Your task to perform on an android device: turn off location Image 0: 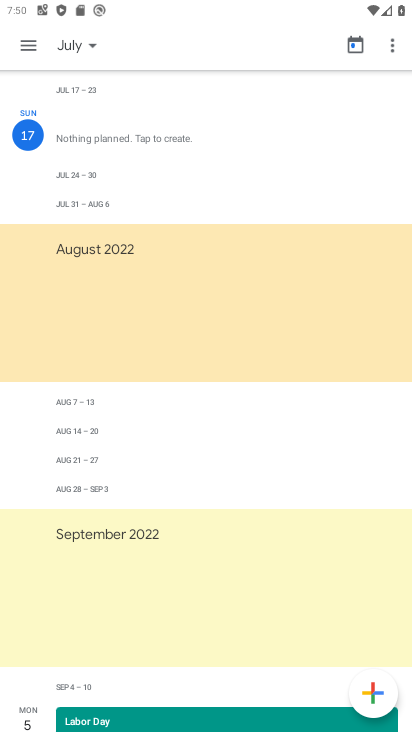
Step 0: click (409, 332)
Your task to perform on an android device: turn off location Image 1: 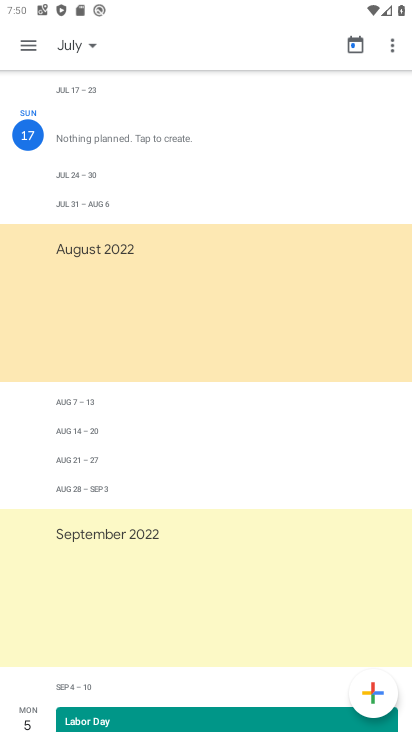
Step 1: press home button
Your task to perform on an android device: turn off location Image 2: 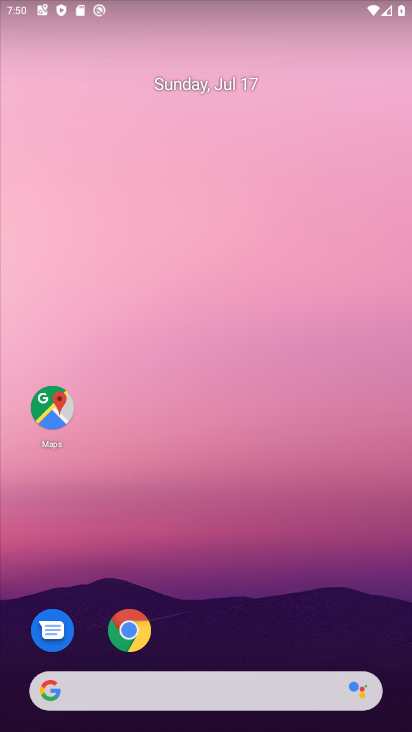
Step 2: click (60, 397)
Your task to perform on an android device: turn off location Image 3: 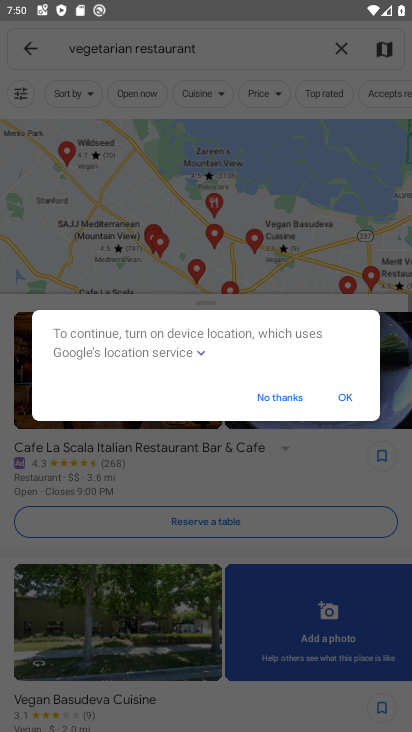
Step 3: press home button
Your task to perform on an android device: turn off location Image 4: 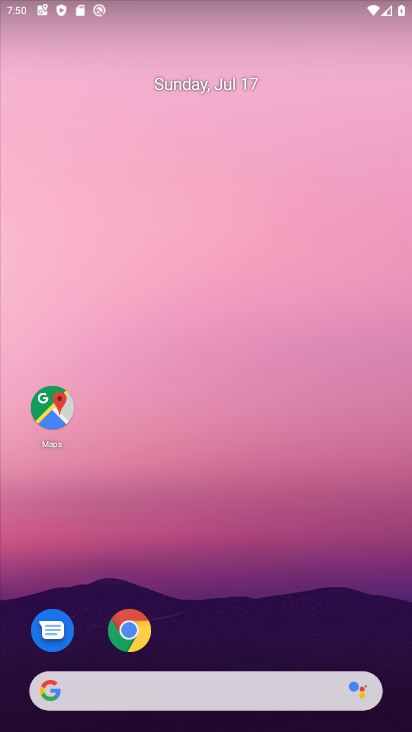
Step 4: drag from (230, 684) to (279, 3)
Your task to perform on an android device: turn off location Image 5: 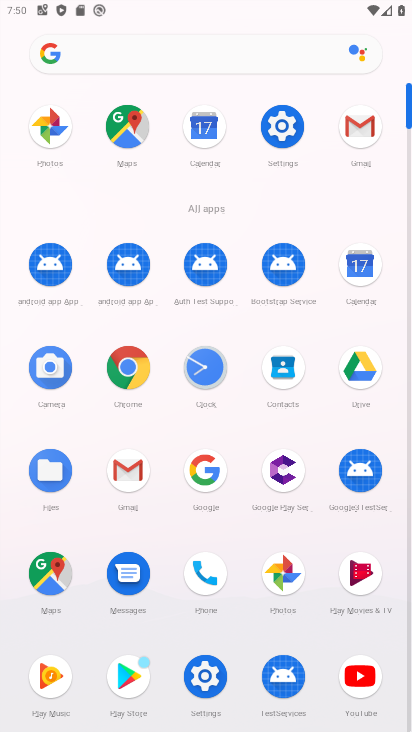
Step 5: click (277, 106)
Your task to perform on an android device: turn off location Image 6: 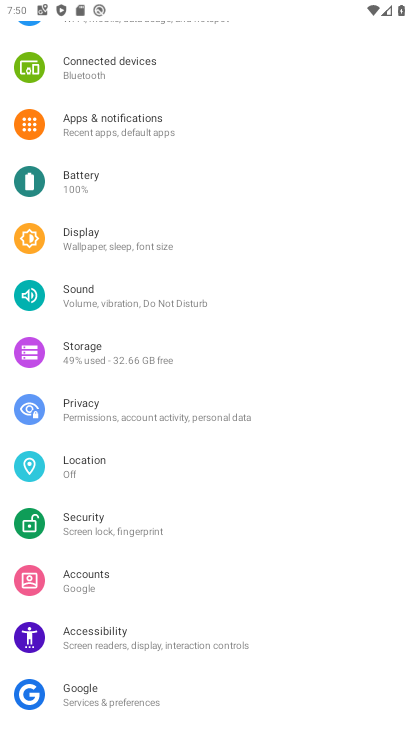
Step 6: click (75, 472)
Your task to perform on an android device: turn off location Image 7: 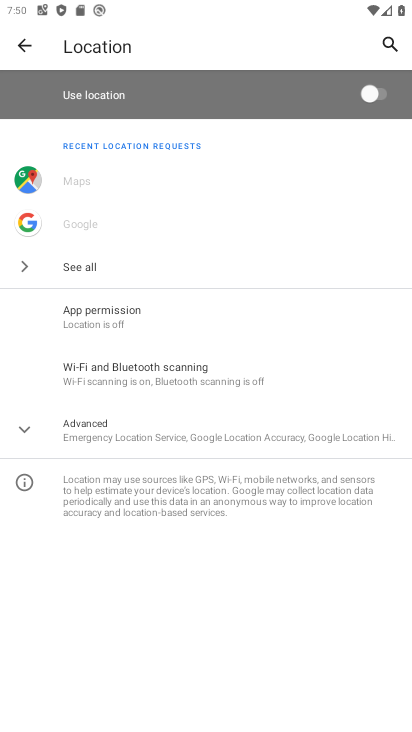
Step 7: task complete